Your task to perform on an android device: Go to Amazon Image 0: 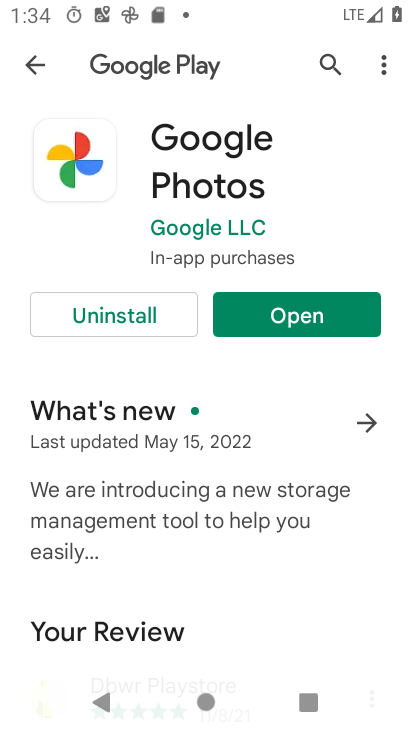
Step 0: press home button
Your task to perform on an android device: Go to Amazon Image 1: 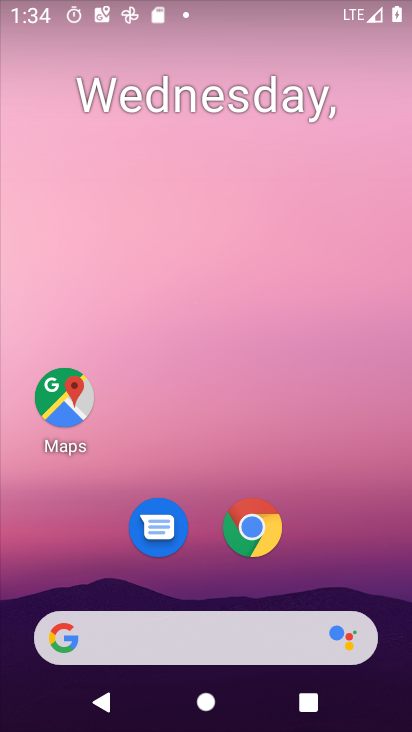
Step 1: drag from (155, 622) to (291, 87)
Your task to perform on an android device: Go to Amazon Image 2: 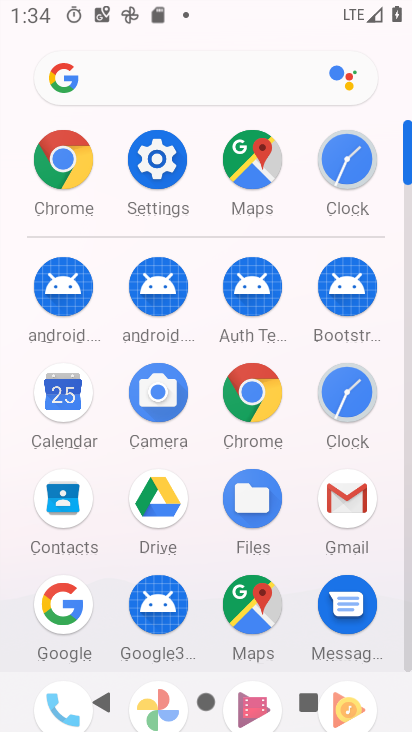
Step 2: click (262, 390)
Your task to perform on an android device: Go to Amazon Image 3: 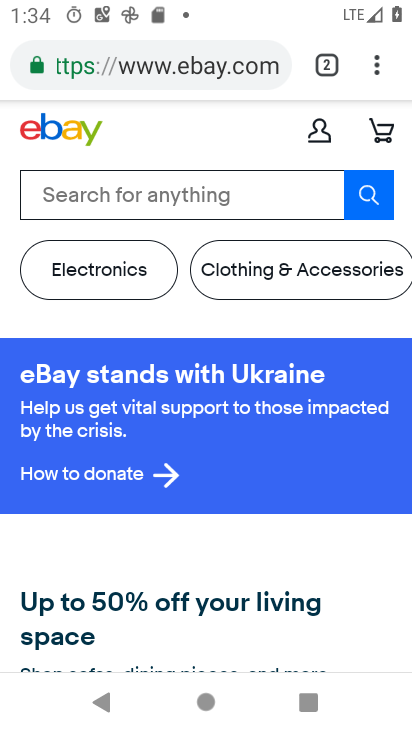
Step 3: click (377, 62)
Your task to perform on an android device: Go to Amazon Image 4: 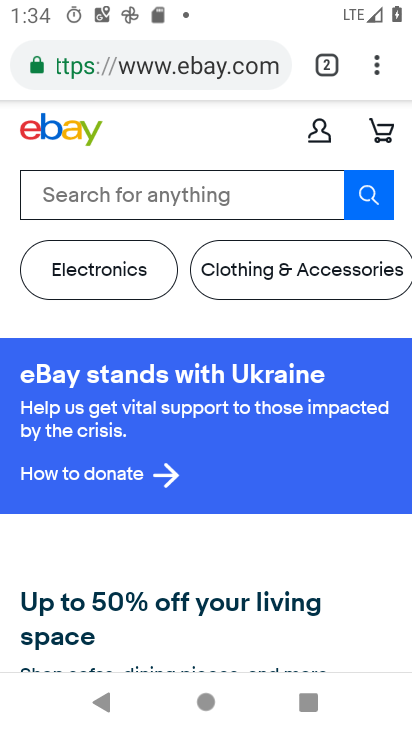
Step 4: click (376, 60)
Your task to perform on an android device: Go to Amazon Image 5: 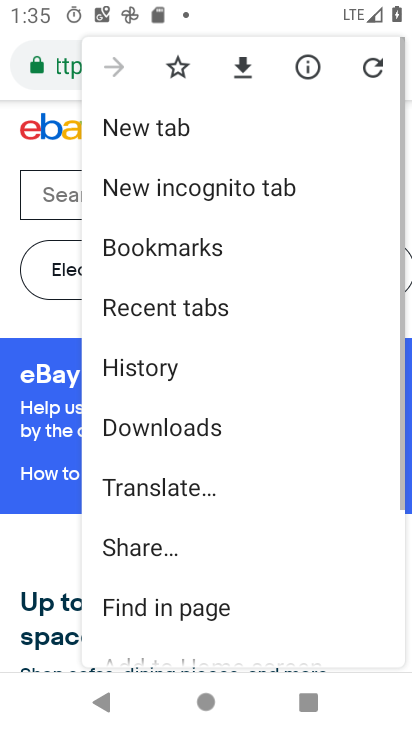
Step 5: click (264, 139)
Your task to perform on an android device: Go to Amazon Image 6: 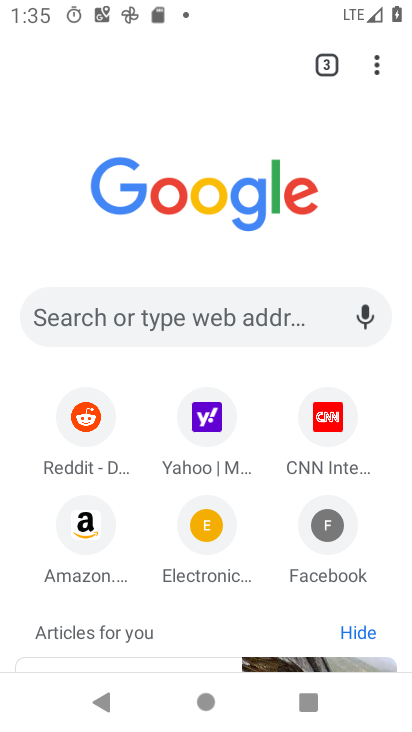
Step 6: click (73, 522)
Your task to perform on an android device: Go to Amazon Image 7: 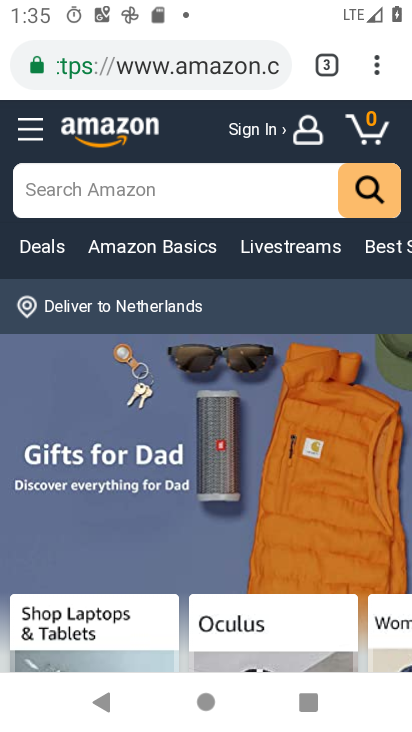
Step 7: task complete